Your task to perform on an android device: turn off smart reply in the gmail app Image 0: 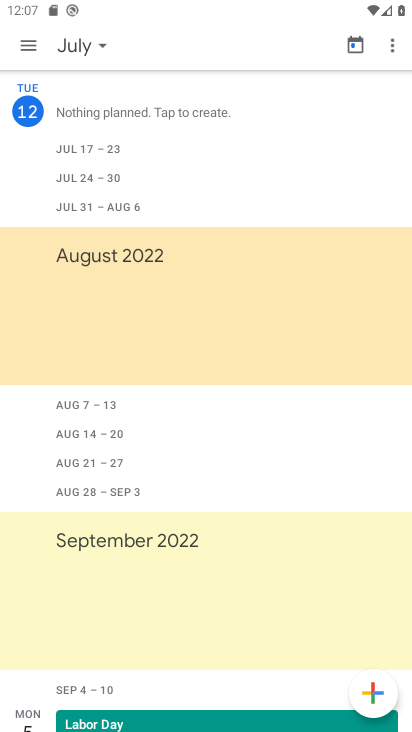
Step 0: press home button
Your task to perform on an android device: turn off smart reply in the gmail app Image 1: 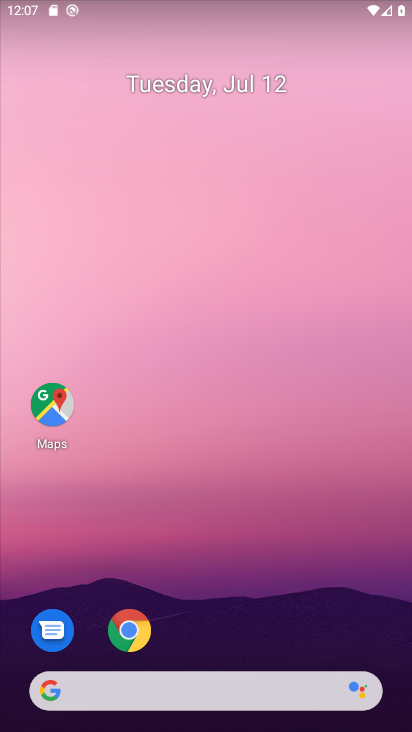
Step 1: drag from (219, 648) to (98, 1)
Your task to perform on an android device: turn off smart reply in the gmail app Image 2: 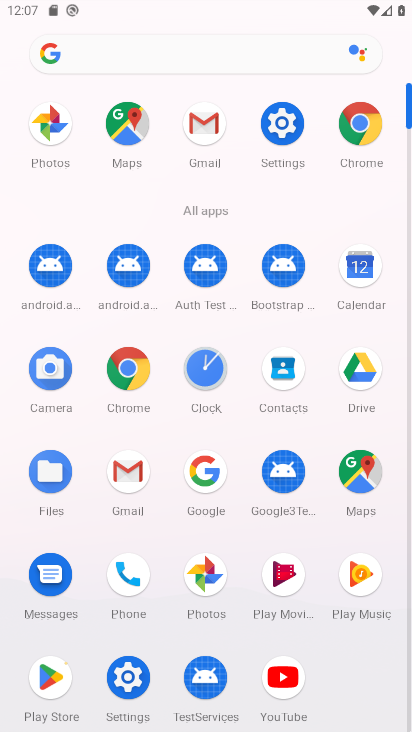
Step 2: click (132, 475)
Your task to perform on an android device: turn off smart reply in the gmail app Image 3: 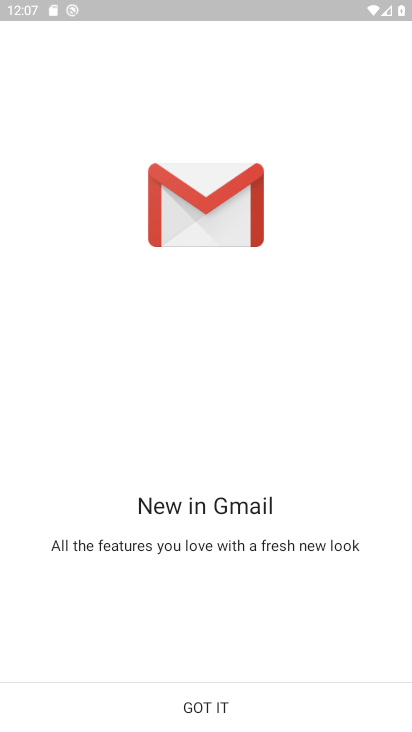
Step 3: click (226, 714)
Your task to perform on an android device: turn off smart reply in the gmail app Image 4: 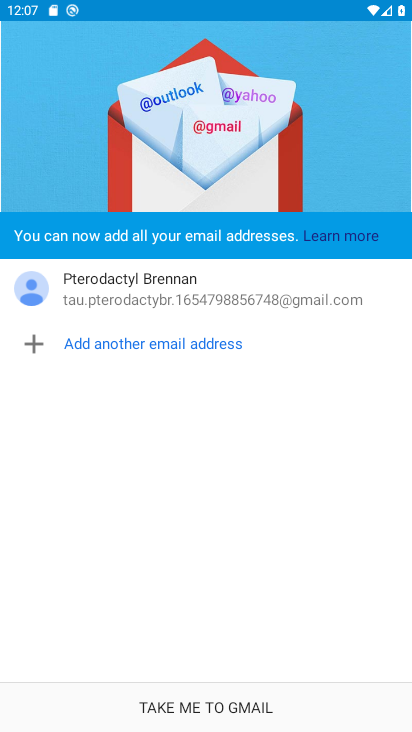
Step 4: click (185, 709)
Your task to perform on an android device: turn off smart reply in the gmail app Image 5: 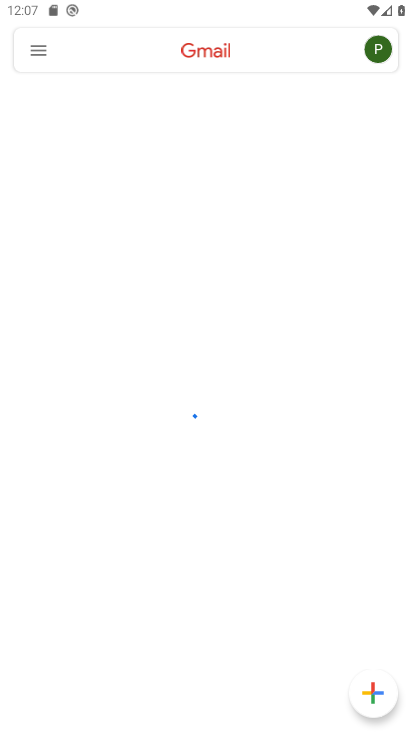
Step 5: click (40, 46)
Your task to perform on an android device: turn off smart reply in the gmail app Image 6: 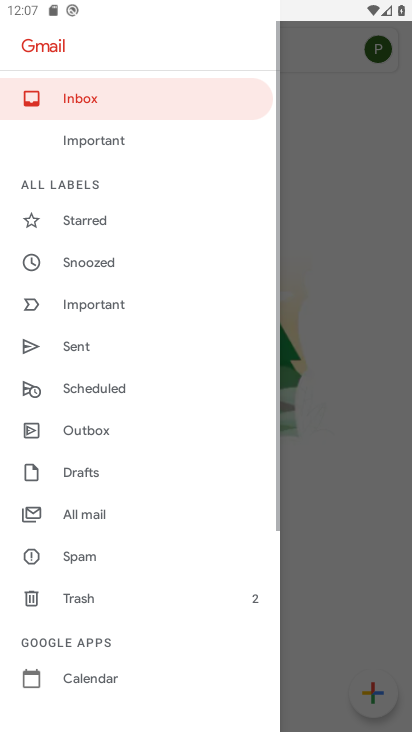
Step 6: drag from (75, 665) to (167, 208)
Your task to perform on an android device: turn off smart reply in the gmail app Image 7: 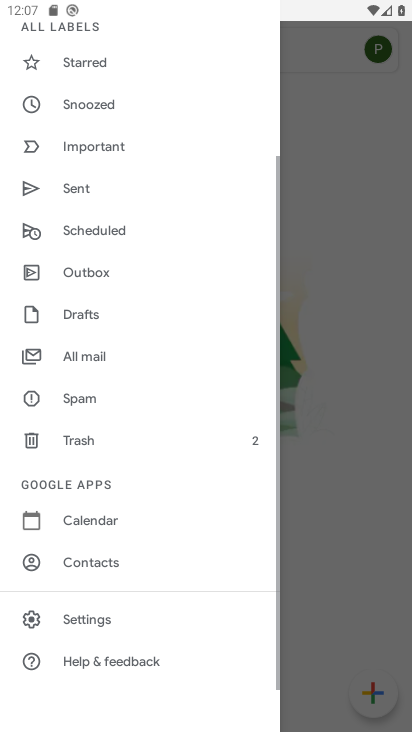
Step 7: click (81, 616)
Your task to perform on an android device: turn off smart reply in the gmail app Image 8: 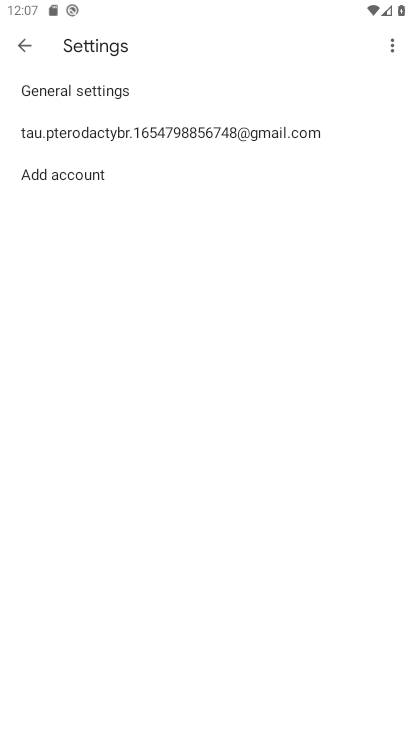
Step 8: click (206, 130)
Your task to perform on an android device: turn off smart reply in the gmail app Image 9: 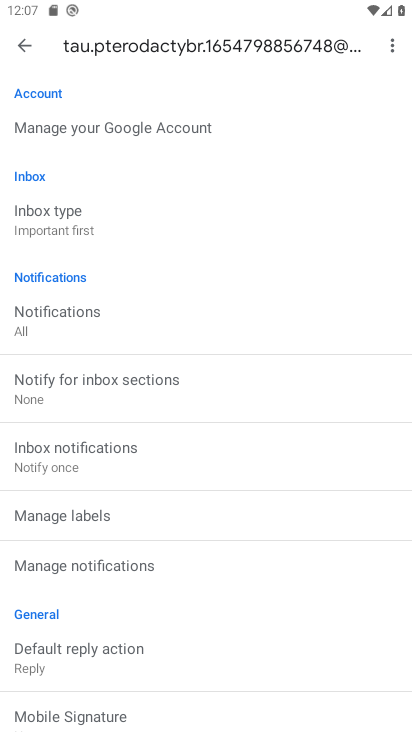
Step 9: drag from (162, 565) to (162, 385)
Your task to perform on an android device: turn off smart reply in the gmail app Image 10: 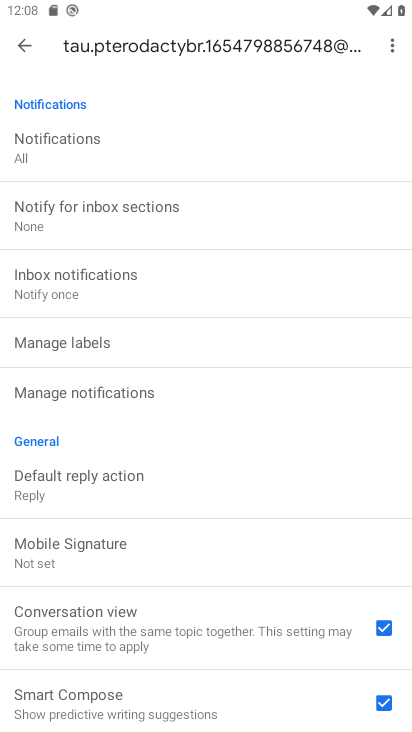
Step 10: drag from (104, 661) to (188, 347)
Your task to perform on an android device: turn off smart reply in the gmail app Image 11: 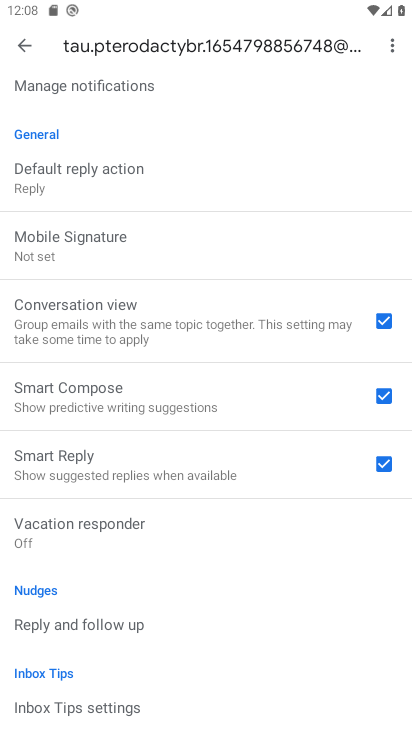
Step 11: click (385, 463)
Your task to perform on an android device: turn off smart reply in the gmail app Image 12: 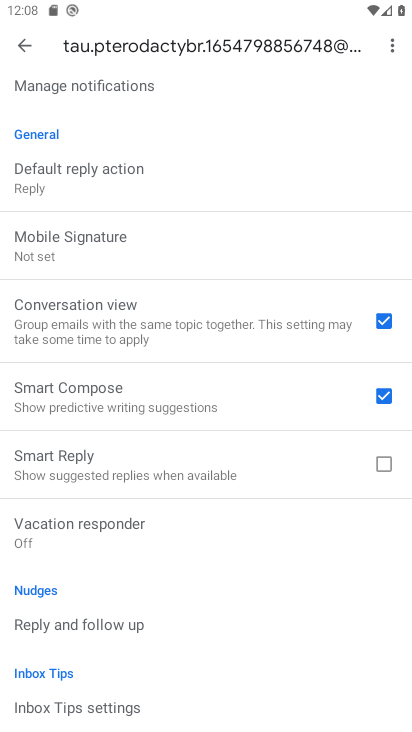
Step 12: task complete